Your task to perform on an android device: turn on data saver in the chrome app Image 0: 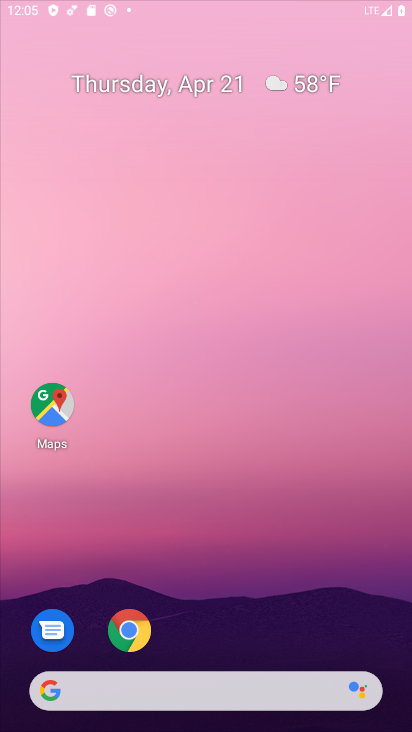
Step 0: drag from (152, 688) to (257, 268)
Your task to perform on an android device: turn on data saver in the chrome app Image 1: 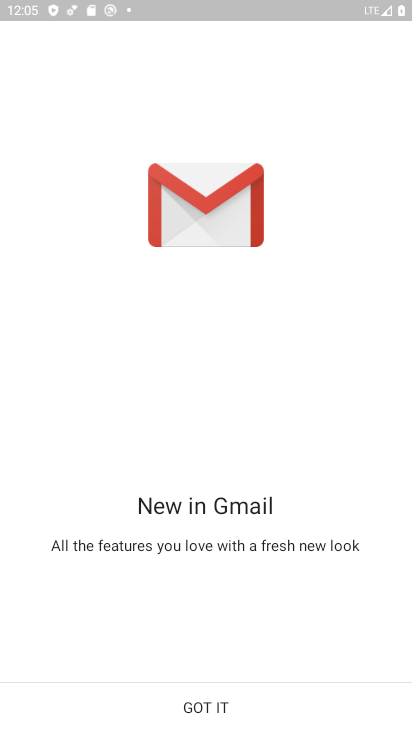
Step 1: press home button
Your task to perform on an android device: turn on data saver in the chrome app Image 2: 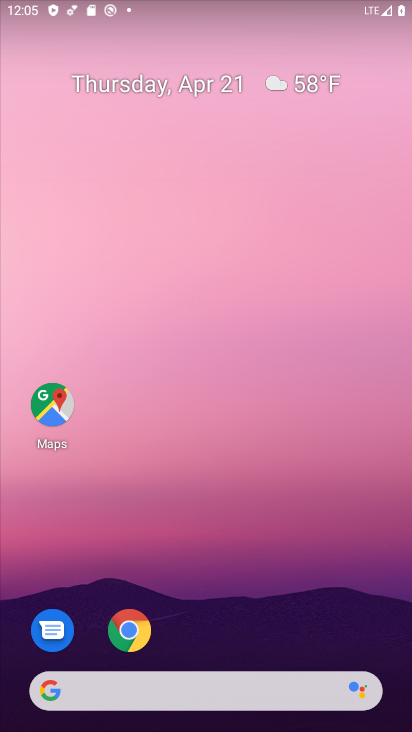
Step 2: drag from (124, 695) to (281, 195)
Your task to perform on an android device: turn on data saver in the chrome app Image 3: 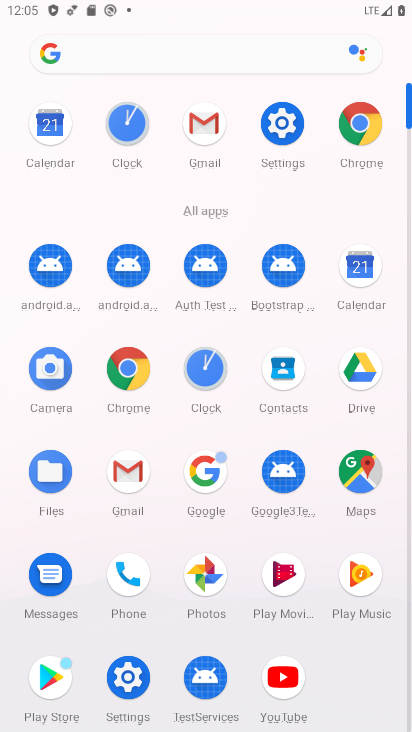
Step 3: click (362, 118)
Your task to perform on an android device: turn on data saver in the chrome app Image 4: 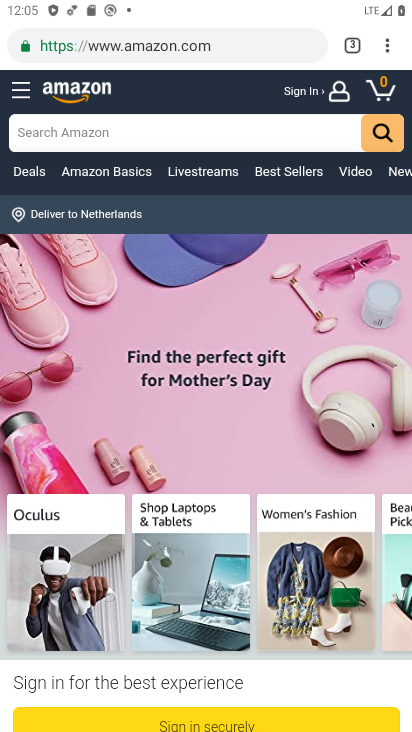
Step 4: click (381, 49)
Your task to perform on an android device: turn on data saver in the chrome app Image 5: 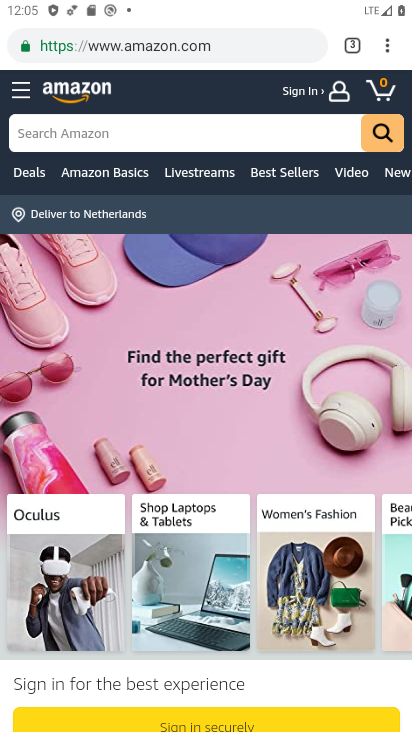
Step 5: click (381, 50)
Your task to perform on an android device: turn on data saver in the chrome app Image 6: 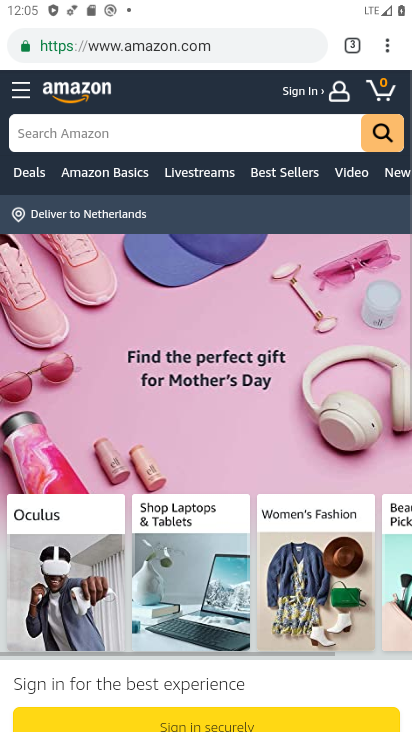
Step 6: click (380, 53)
Your task to perform on an android device: turn on data saver in the chrome app Image 7: 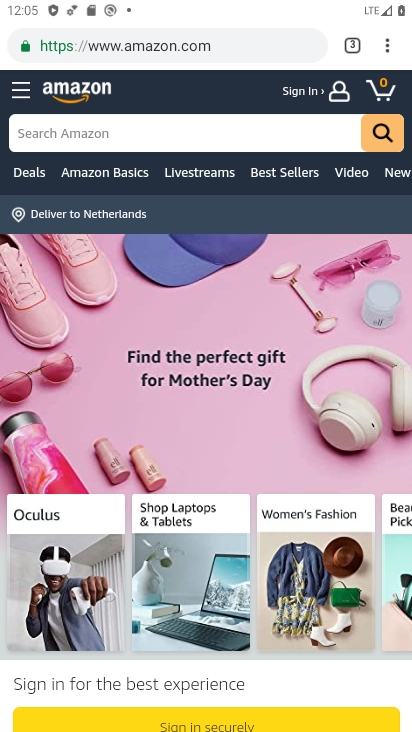
Step 7: click (384, 59)
Your task to perform on an android device: turn on data saver in the chrome app Image 8: 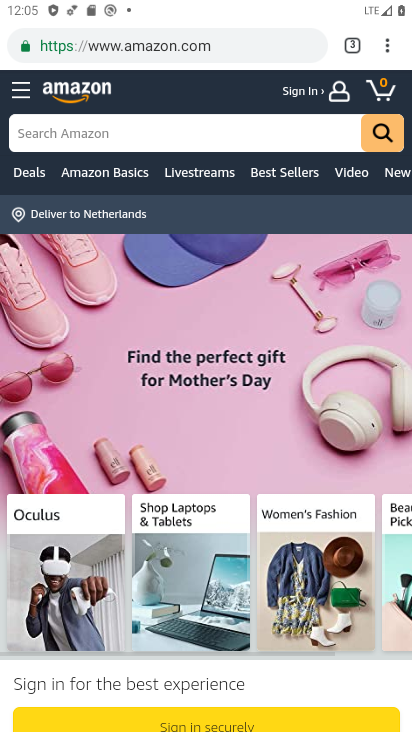
Step 8: click (377, 55)
Your task to perform on an android device: turn on data saver in the chrome app Image 9: 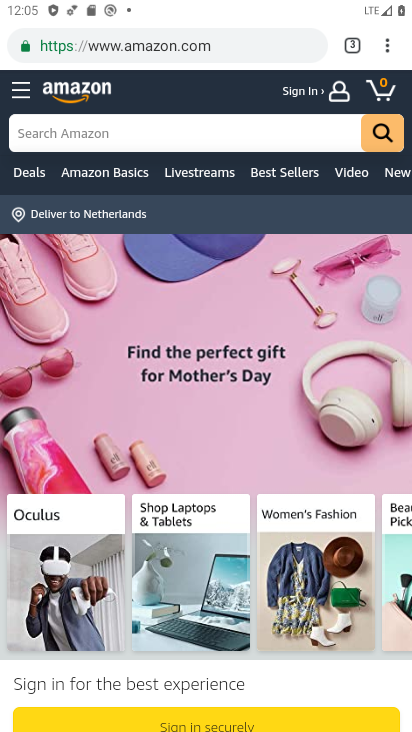
Step 9: click (383, 49)
Your task to perform on an android device: turn on data saver in the chrome app Image 10: 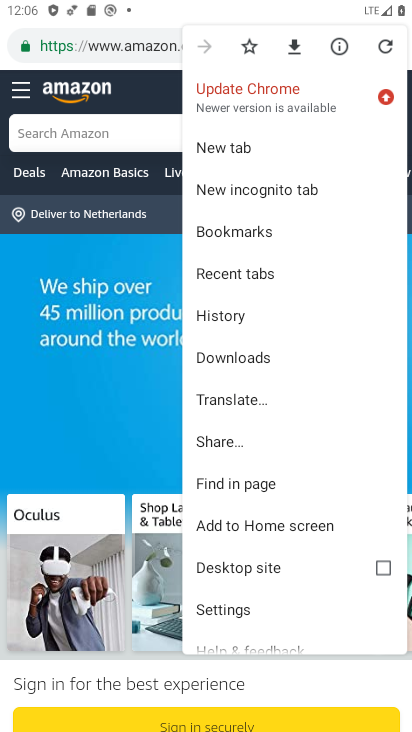
Step 10: click (233, 609)
Your task to perform on an android device: turn on data saver in the chrome app Image 11: 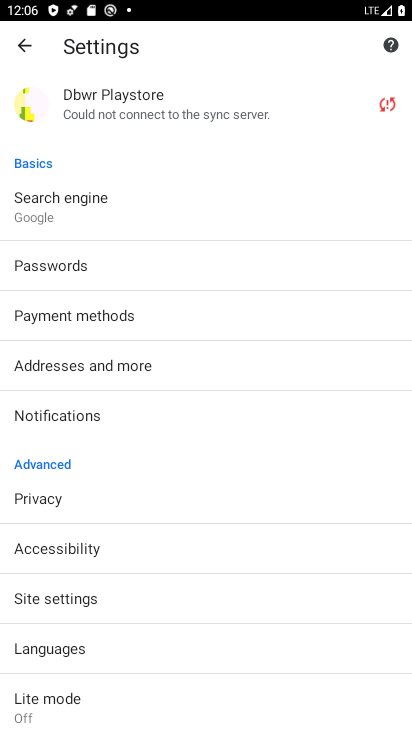
Step 11: drag from (97, 640) to (223, 317)
Your task to perform on an android device: turn on data saver in the chrome app Image 12: 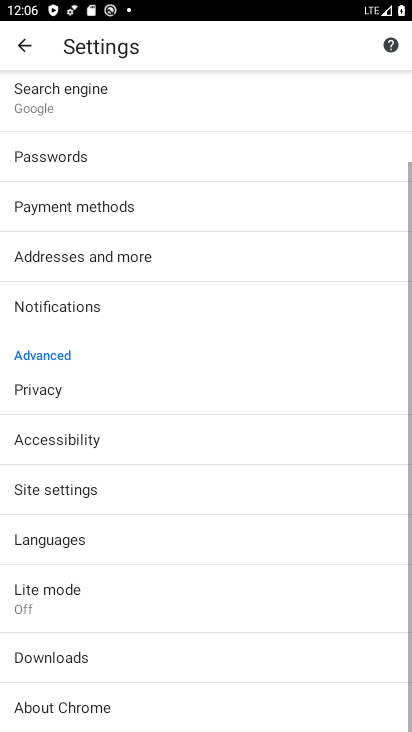
Step 12: click (64, 594)
Your task to perform on an android device: turn on data saver in the chrome app Image 13: 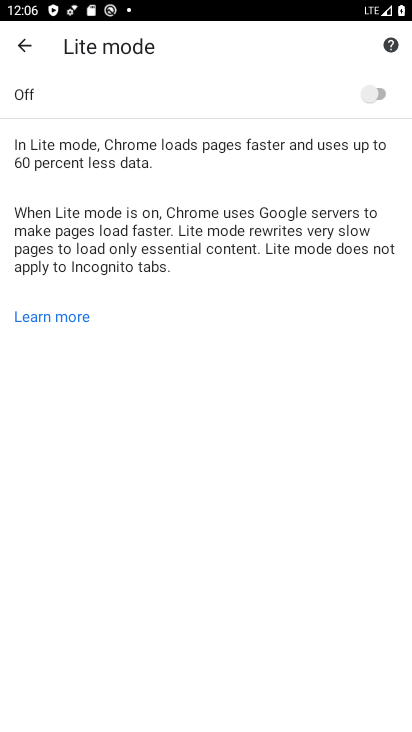
Step 13: click (381, 92)
Your task to perform on an android device: turn on data saver in the chrome app Image 14: 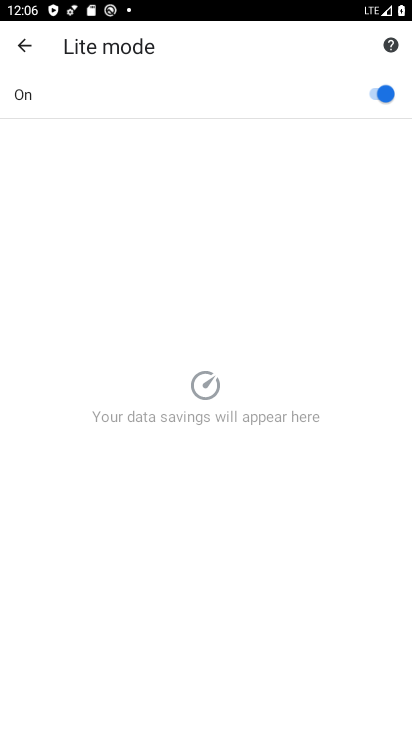
Step 14: task complete